Your task to perform on an android device: Open the map Image 0: 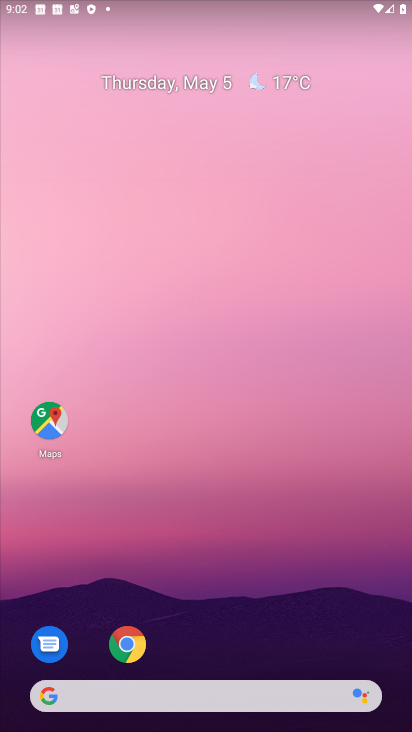
Step 0: click (31, 403)
Your task to perform on an android device: Open the map Image 1: 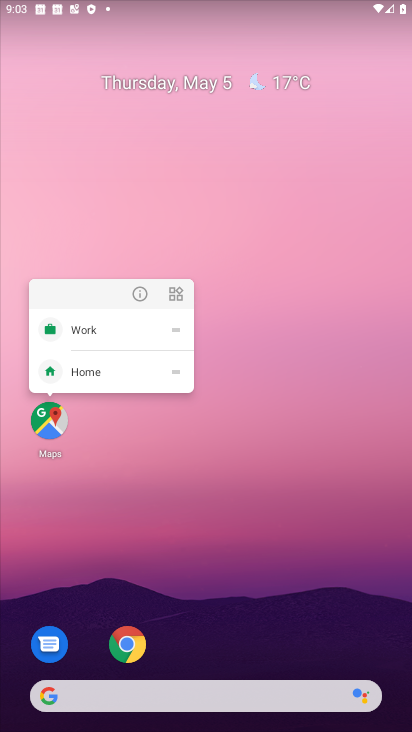
Step 1: click (129, 294)
Your task to perform on an android device: Open the map Image 2: 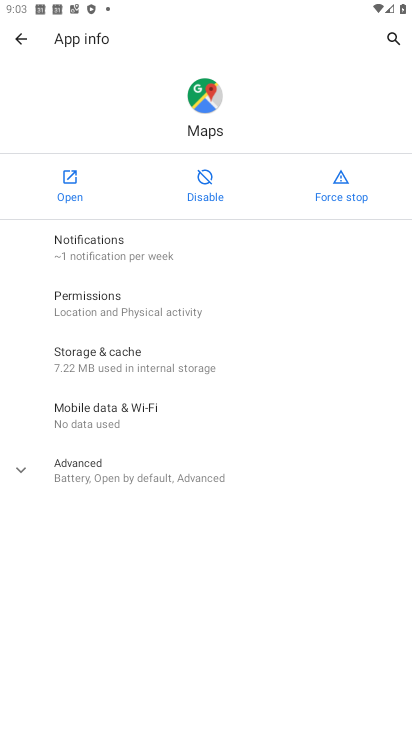
Step 2: click (56, 178)
Your task to perform on an android device: Open the map Image 3: 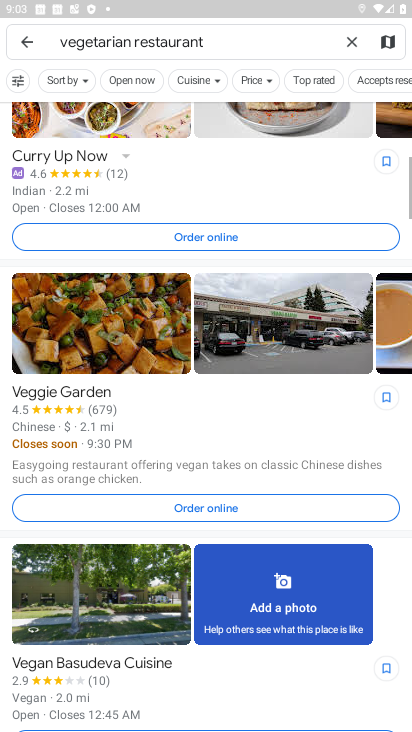
Step 3: click (6, 46)
Your task to perform on an android device: Open the map Image 4: 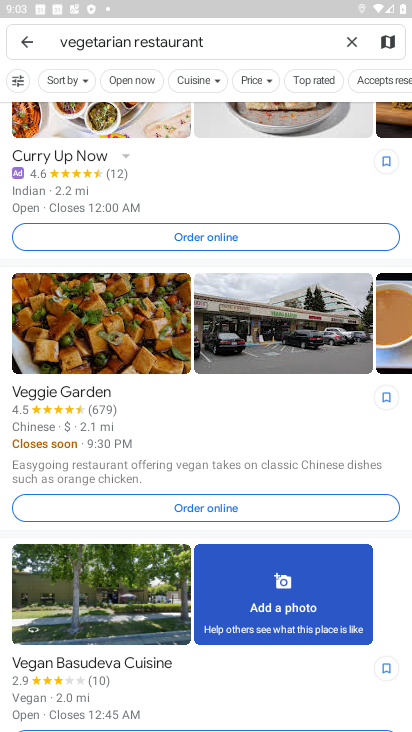
Step 4: task complete